Your task to perform on an android device: delete browsing data in the chrome app Image 0: 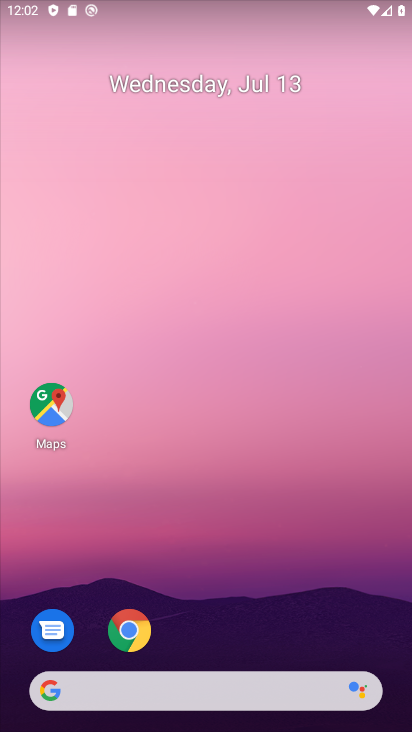
Step 0: press home button
Your task to perform on an android device: delete browsing data in the chrome app Image 1: 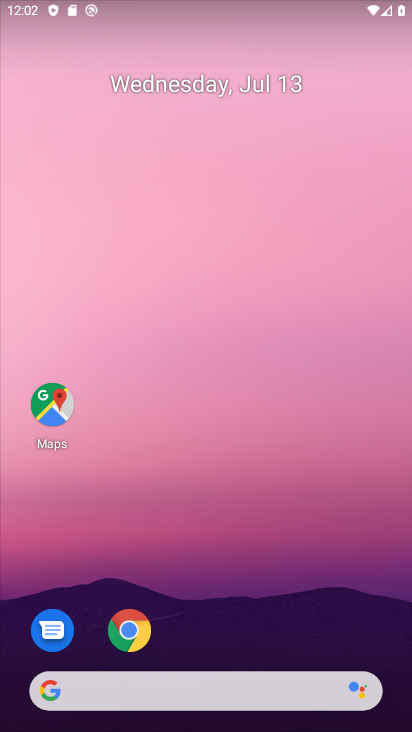
Step 1: click (126, 621)
Your task to perform on an android device: delete browsing data in the chrome app Image 2: 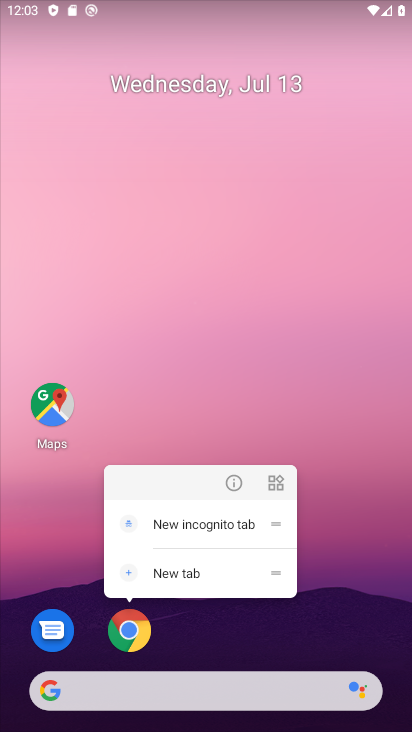
Step 2: click (124, 624)
Your task to perform on an android device: delete browsing data in the chrome app Image 3: 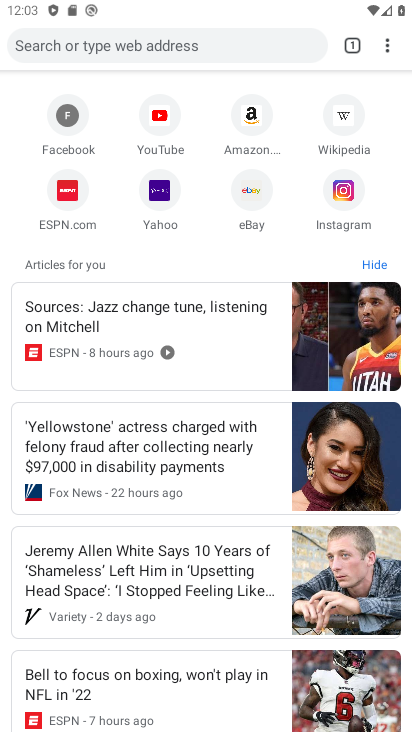
Step 3: click (386, 43)
Your task to perform on an android device: delete browsing data in the chrome app Image 4: 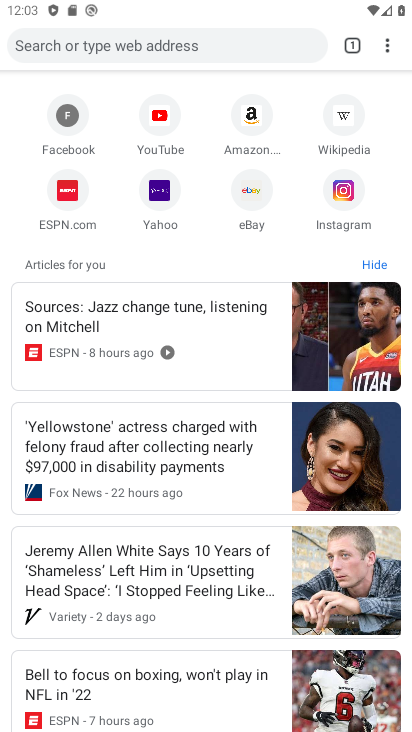
Step 4: click (386, 49)
Your task to perform on an android device: delete browsing data in the chrome app Image 5: 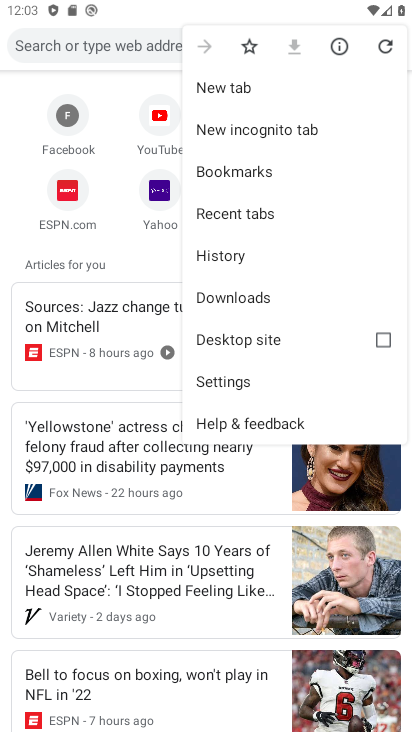
Step 5: click (260, 253)
Your task to perform on an android device: delete browsing data in the chrome app Image 6: 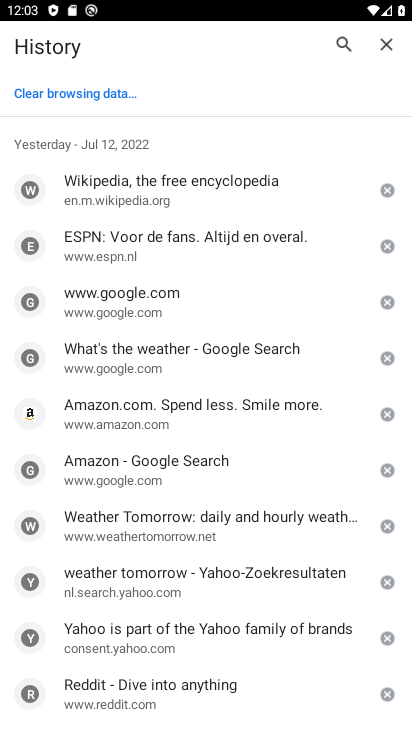
Step 6: click (57, 95)
Your task to perform on an android device: delete browsing data in the chrome app Image 7: 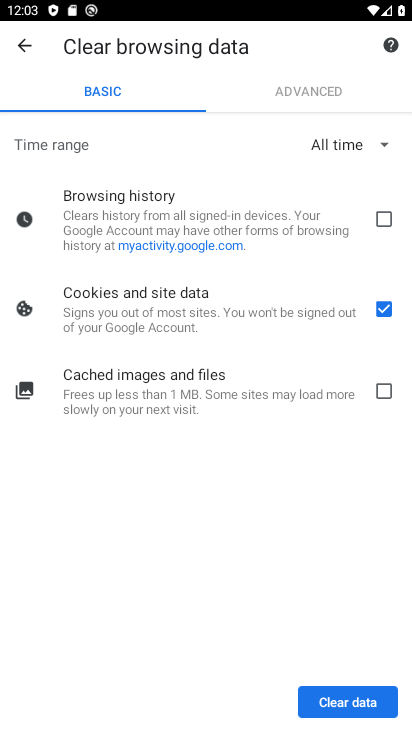
Step 7: click (384, 305)
Your task to perform on an android device: delete browsing data in the chrome app Image 8: 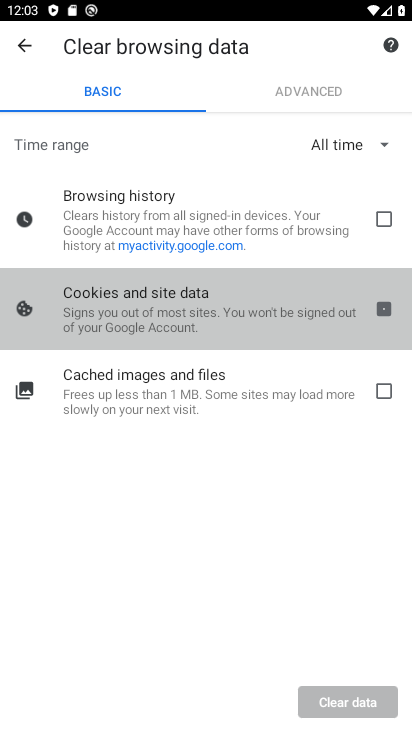
Step 8: click (389, 205)
Your task to perform on an android device: delete browsing data in the chrome app Image 9: 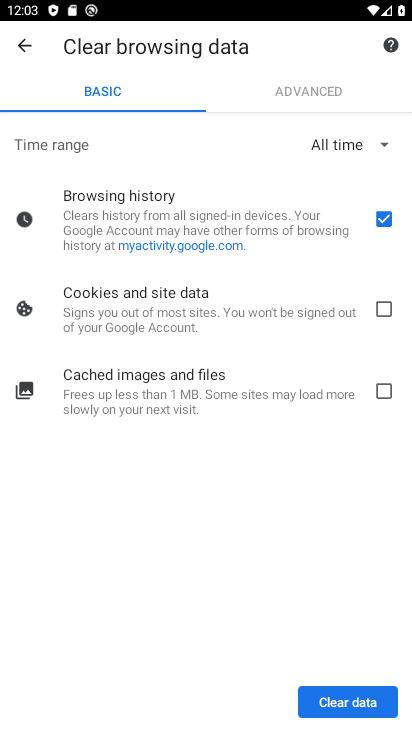
Step 9: click (371, 709)
Your task to perform on an android device: delete browsing data in the chrome app Image 10: 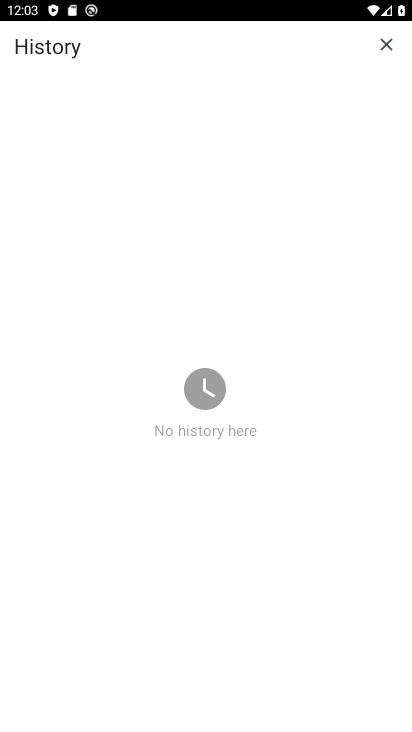
Step 10: task complete